Your task to perform on an android device: check google app version Image 0: 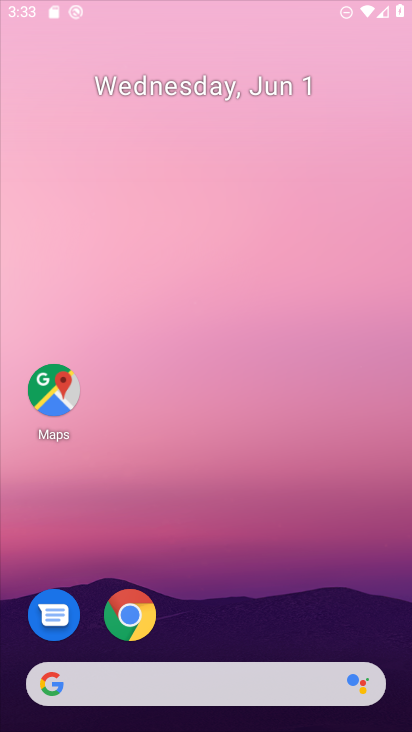
Step 0: press home button
Your task to perform on an android device: check google app version Image 1: 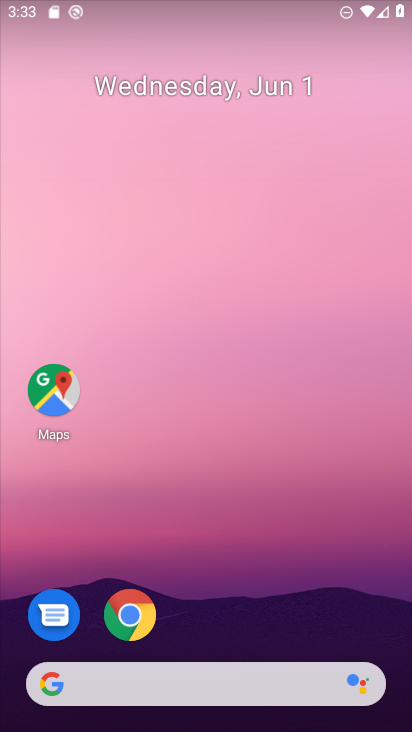
Step 1: drag from (218, 641) to (256, 148)
Your task to perform on an android device: check google app version Image 2: 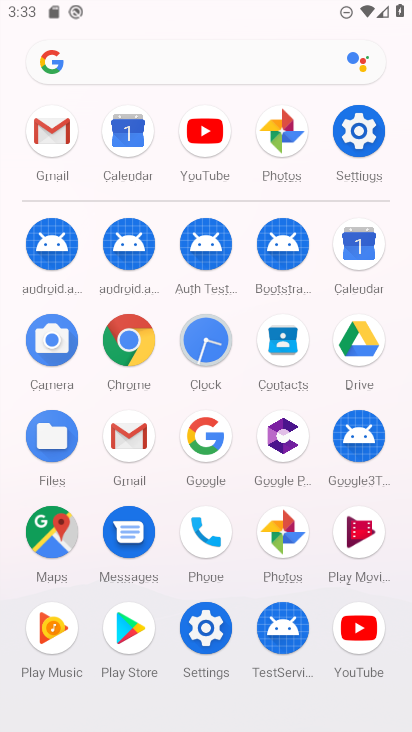
Step 2: click (202, 432)
Your task to perform on an android device: check google app version Image 3: 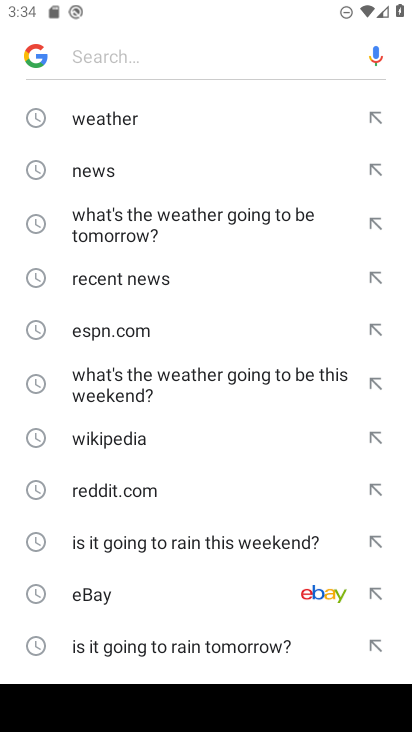
Step 3: press back button
Your task to perform on an android device: check google app version Image 4: 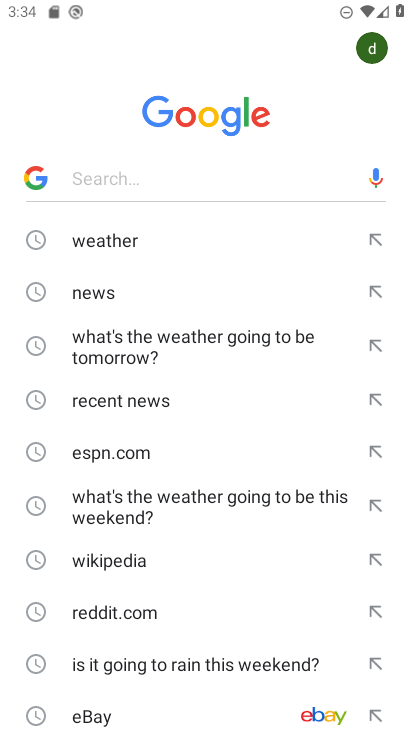
Step 4: press back button
Your task to perform on an android device: check google app version Image 5: 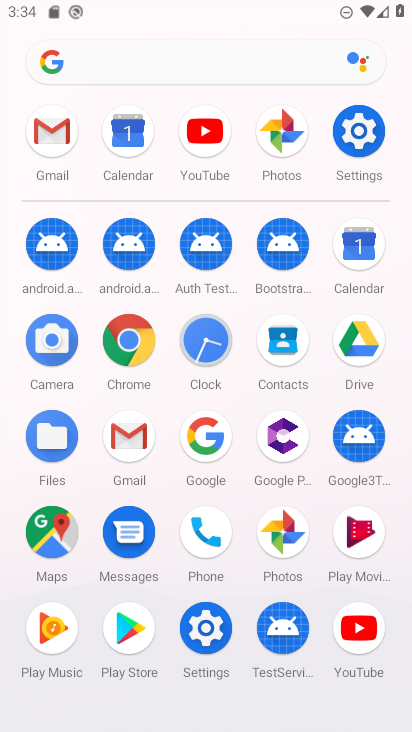
Step 5: click (202, 424)
Your task to perform on an android device: check google app version Image 6: 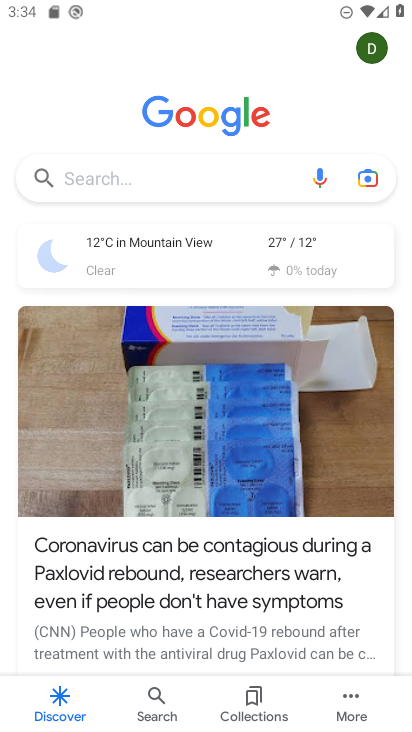
Step 6: click (353, 687)
Your task to perform on an android device: check google app version Image 7: 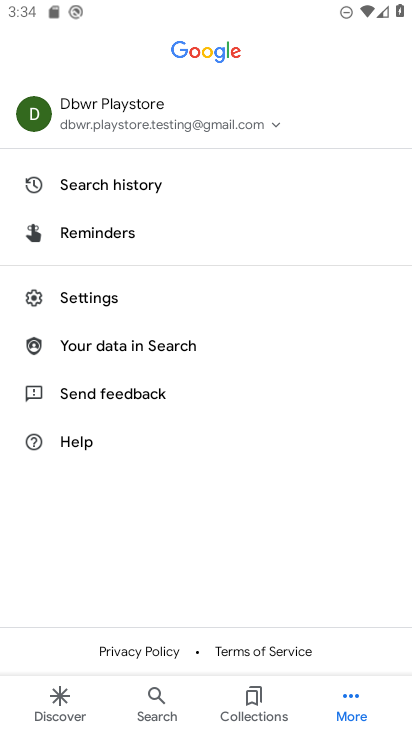
Step 7: click (131, 290)
Your task to perform on an android device: check google app version Image 8: 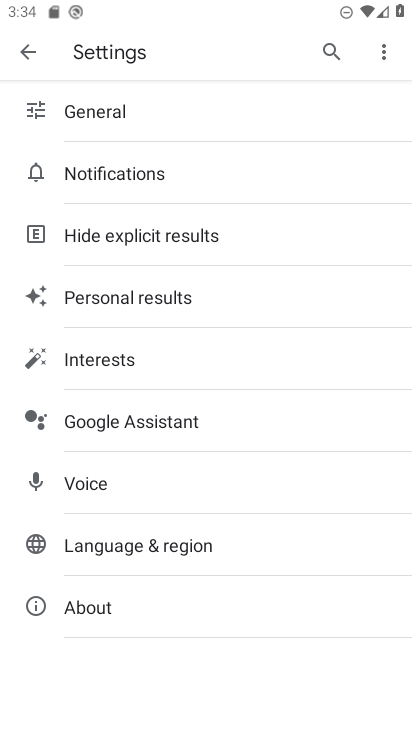
Step 8: click (128, 612)
Your task to perform on an android device: check google app version Image 9: 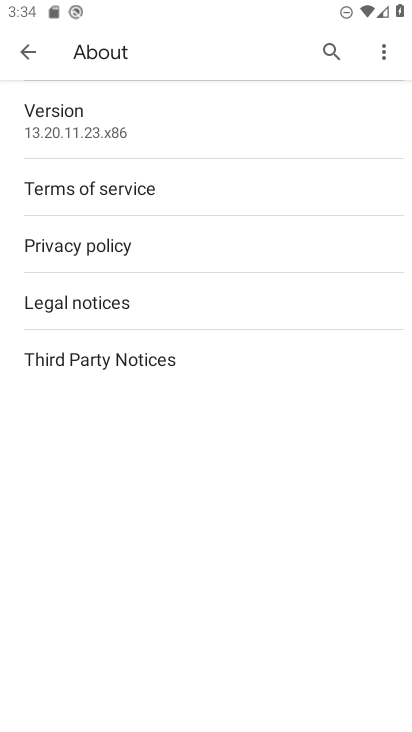
Step 9: task complete